Your task to perform on an android device: toggle wifi Image 0: 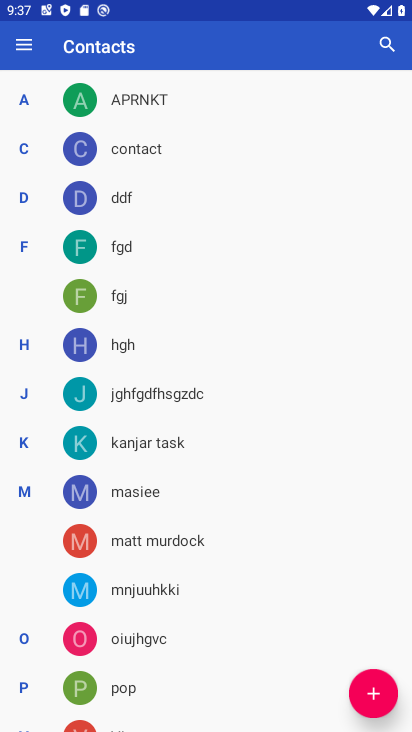
Step 0: press home button
Your task to perform on an android device: toggle wifi Image 1: 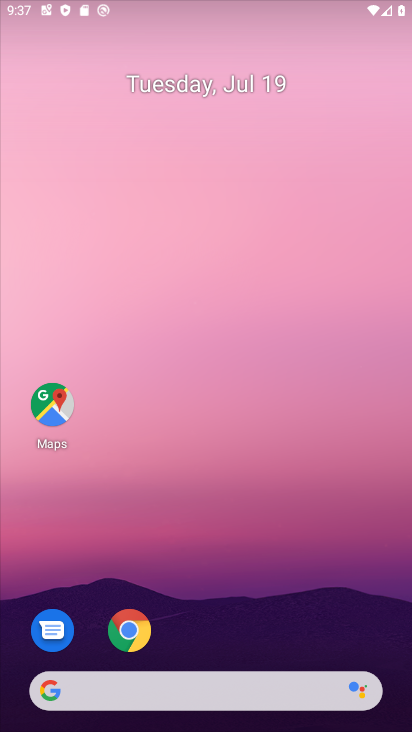
Step 1: drag from (222, 615) to (217, 170)
Your task to perform on an android device: toggle wifi Image 2: 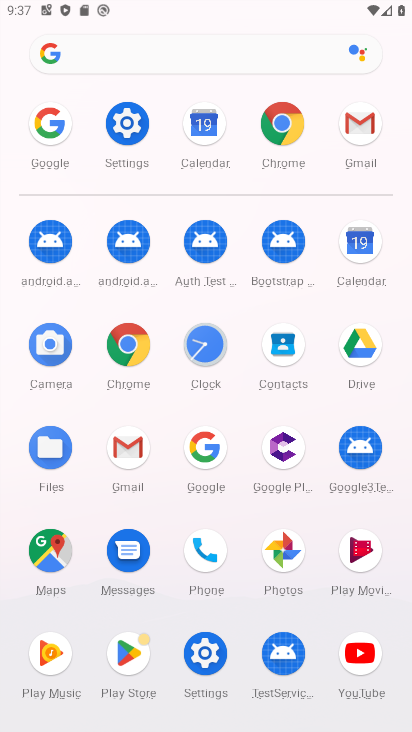
Step 2: click (122, 121)
Your task to perform on an android device: toggle wifi Image 3: 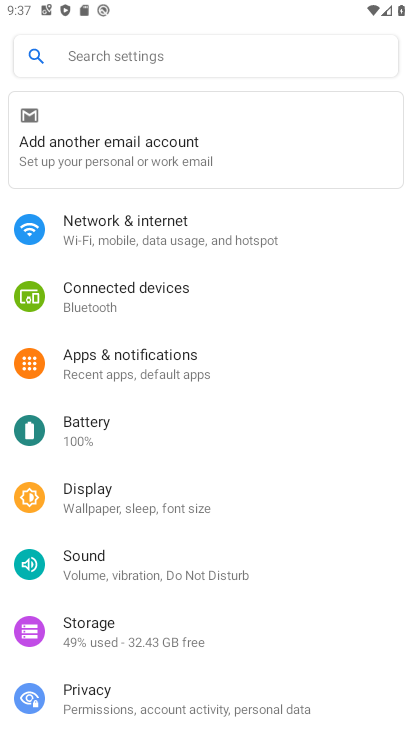
Step 3: click (168, 224)
Your task to perform on an android device: toggle wifi Image 4: 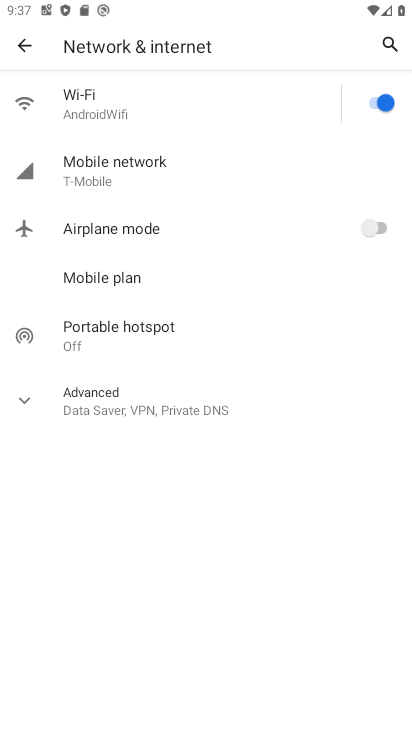
Step 4: click (383, 106)
Your task to perform on an android device: toggle wifi Image 5: 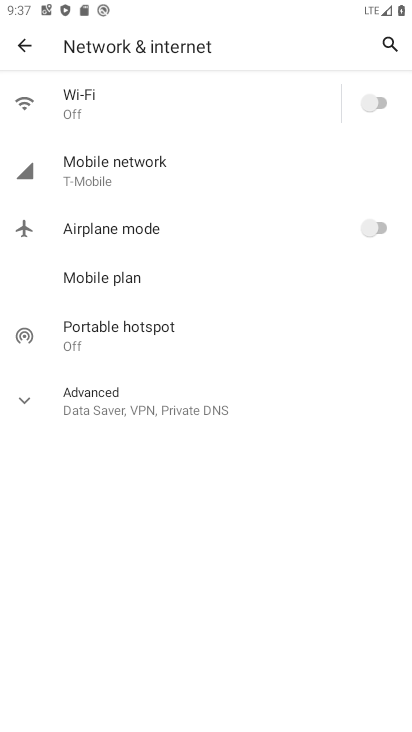
Step 5: task complete